Your task to perform on an android device: What is the news today? Image 0: 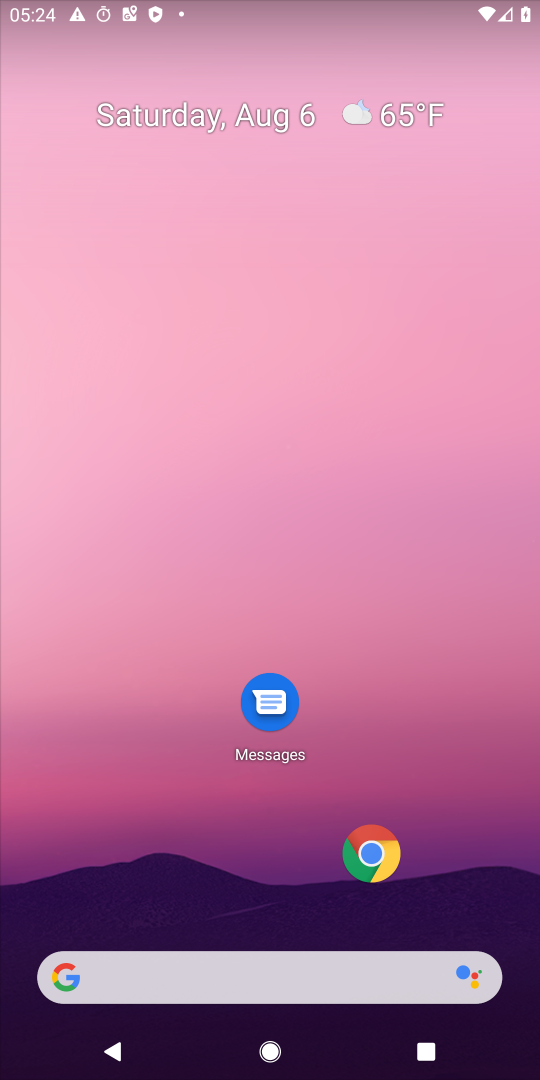
Step 0: click (366, 852)
Your task to perform on an android device: What is the news today? Image 1: 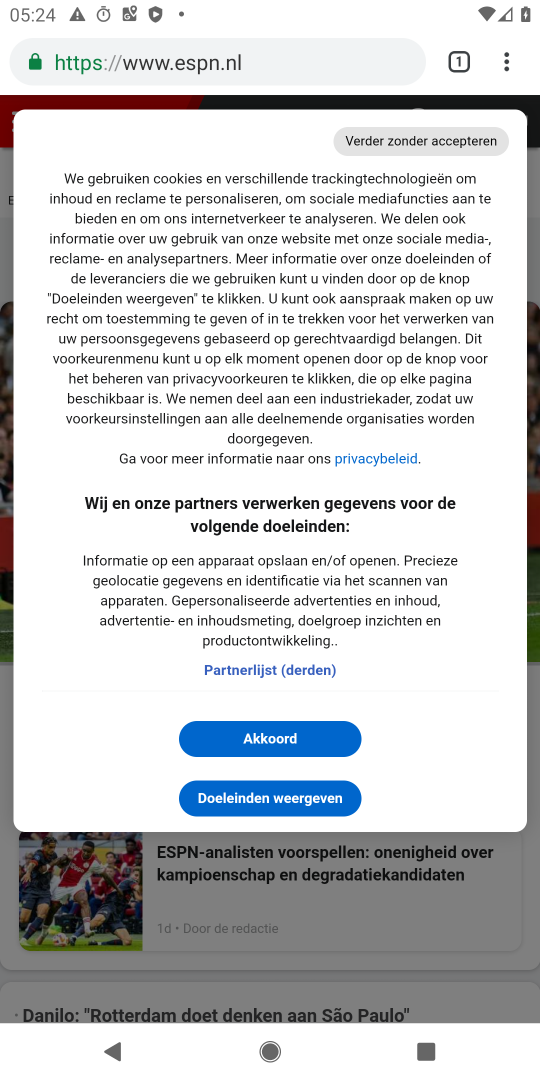
Step 1: click (314, 56)
Your task to perform on an android device: What is the news today? Image 2: 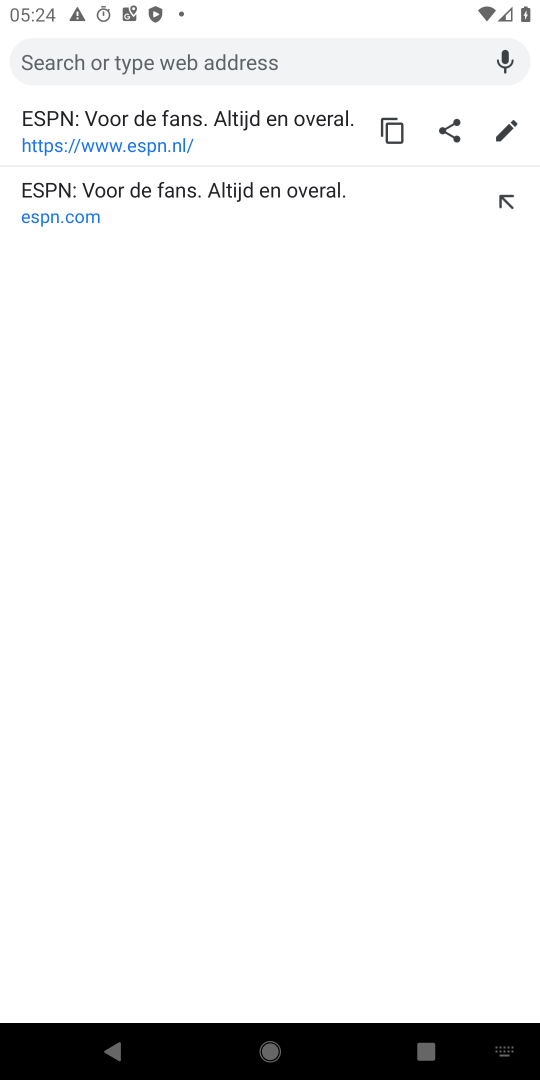
Step 2: type "news"
Your task to perform on an android device: What is the news today? Image 3: 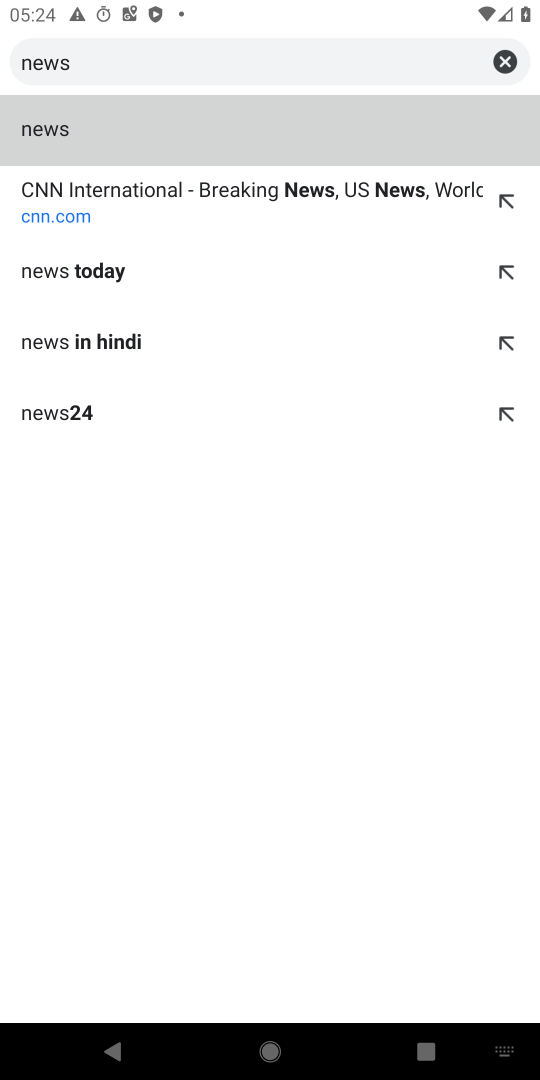
Step 3: click (50, 136)
Your task to perform on an android device: What is the news today? Image 4: 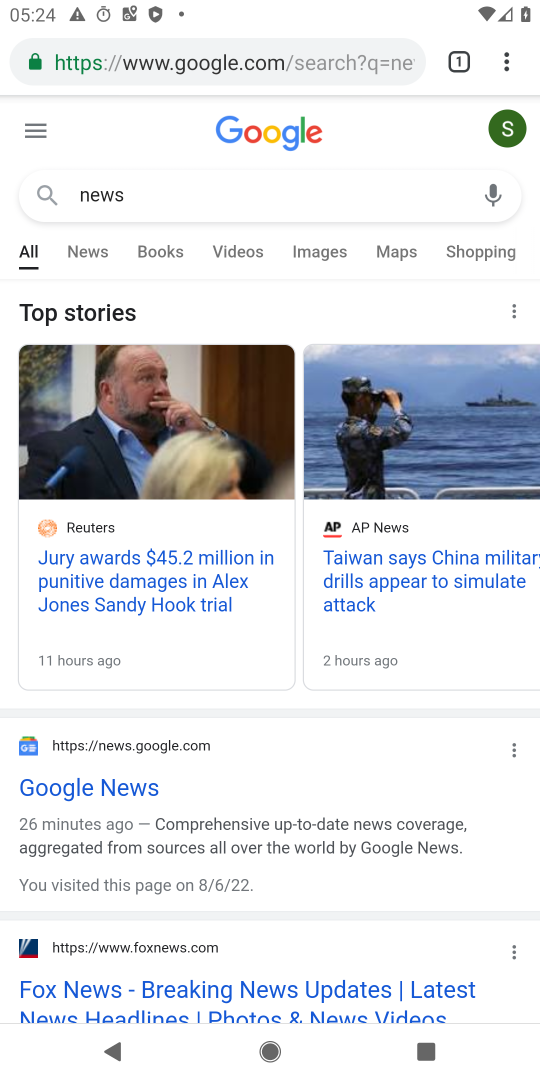
Step 4: click (103, 803)
Your task to perform on an android device: What is the news today? Image 5: 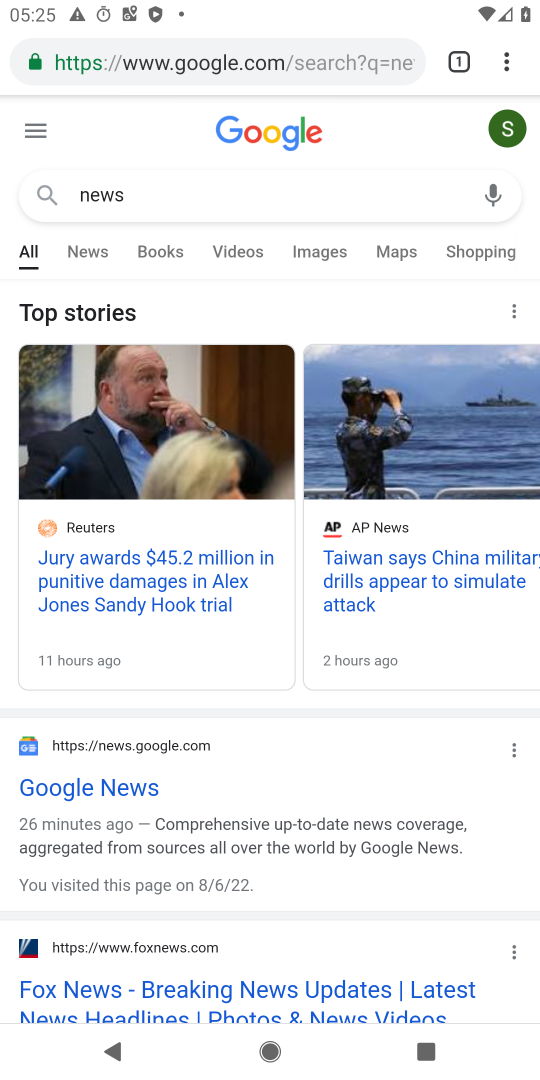
Step 5: click (57, 785)
Your task to perform on an android device: What is the news today? Image 6: 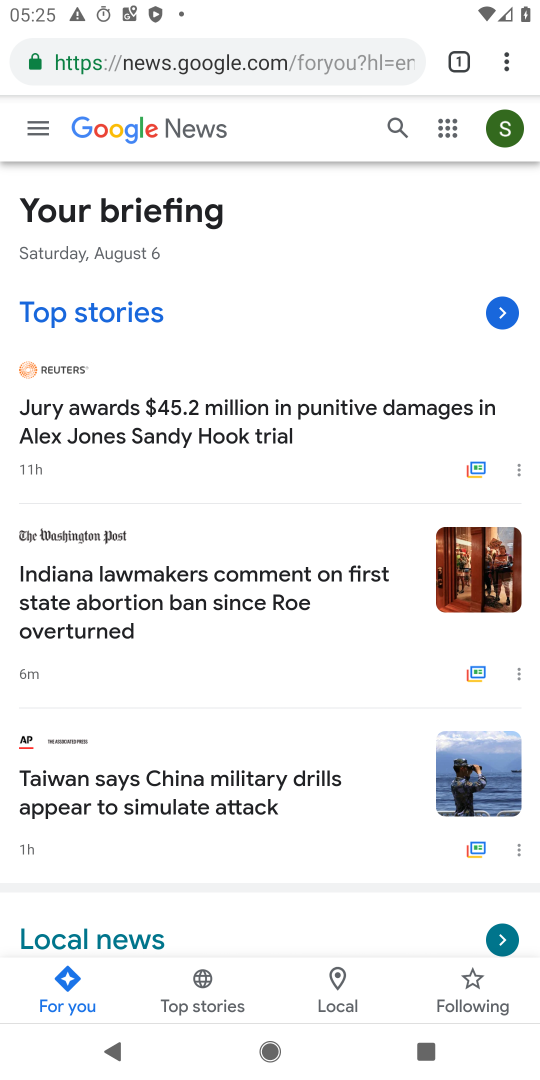
Step 6: task complete